Your task to perform on an android device: Open Google Chrome Image 0: 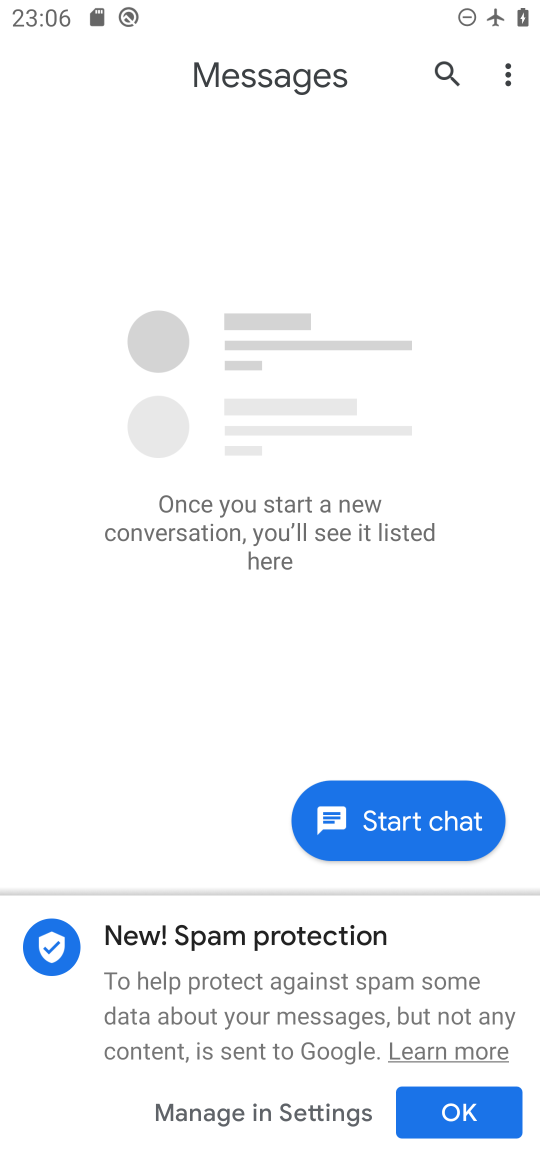
Step 0: press home button
Your task to perform on an android device: Open Google Chrome Image 1: 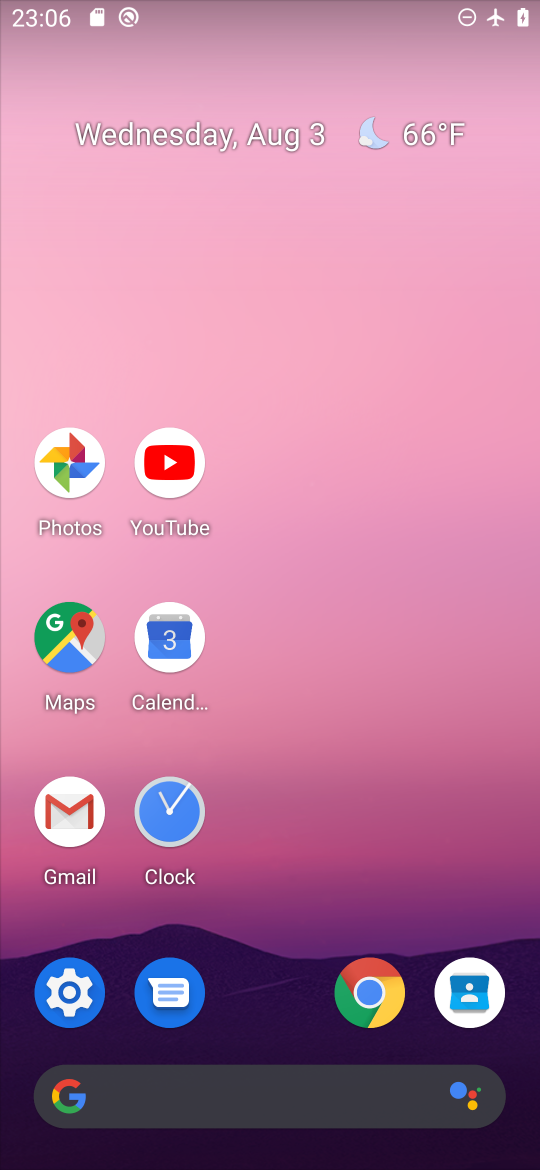
Step 1: click (370, 993)
Your task to perform on an android device: Open Google Chrome Image 2: 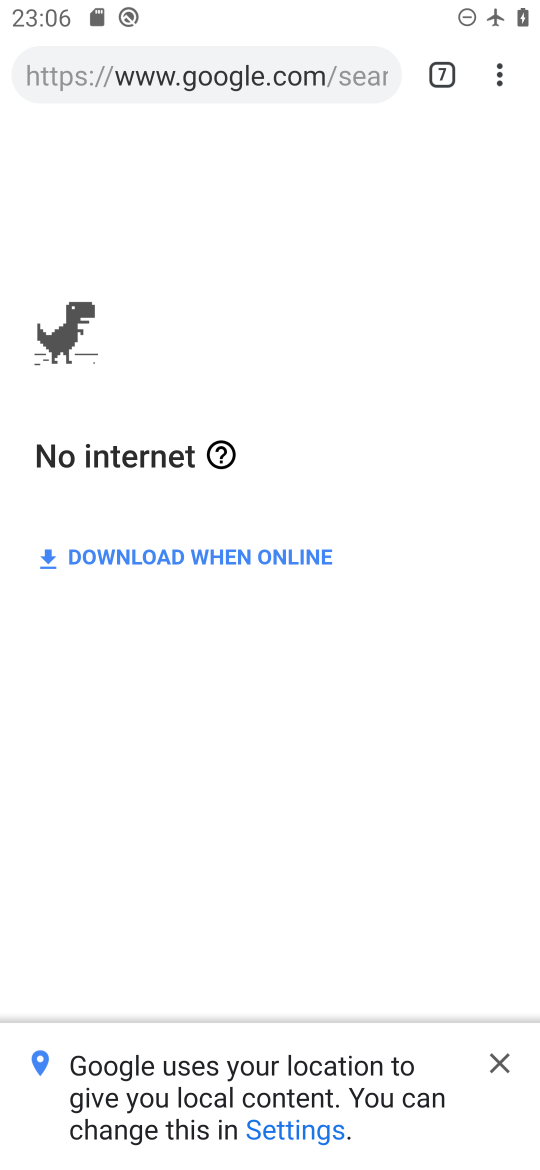
Step 2: click (495, 87)
Your task to perform on an android device: Open Google Chrome Image 3: 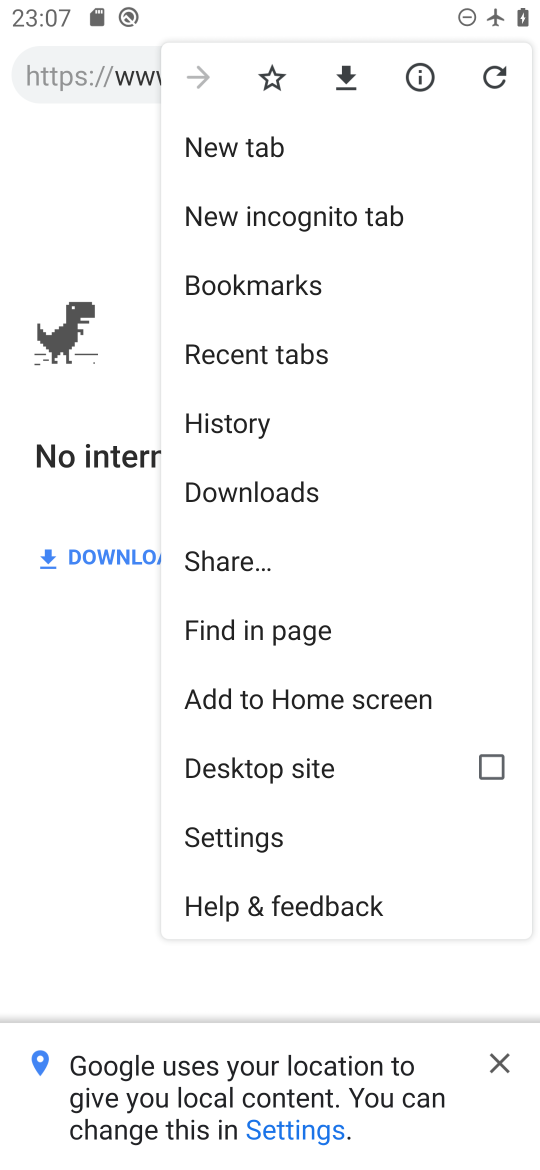
Step 3: click (244, 142)
Your task to perform on an android device: Open Google Chrome Image 4: 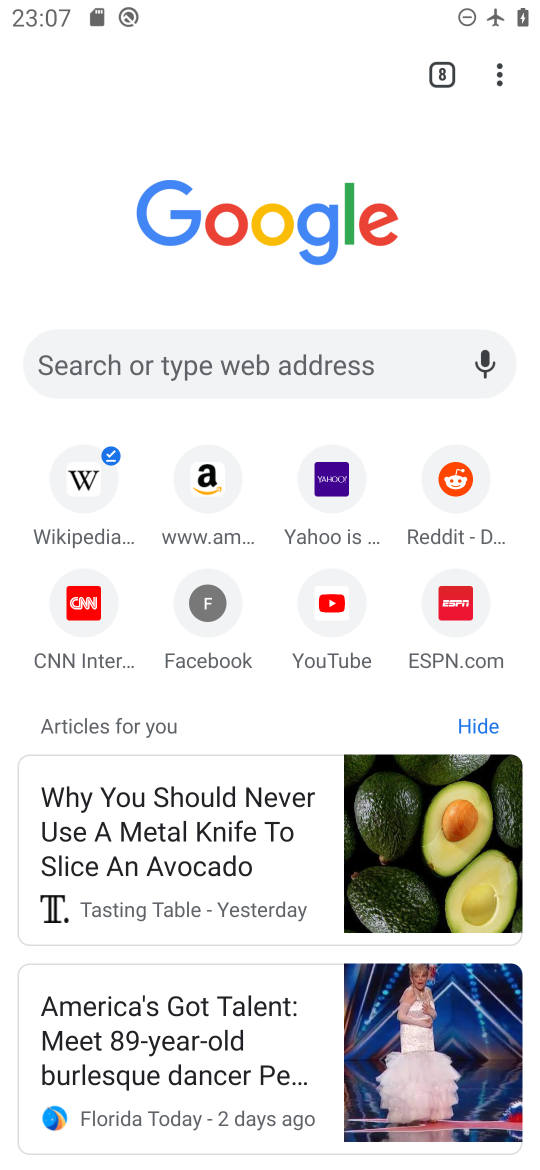
Step 4: task complete